Your task to perform on an android device: open a new tab in the chrome app Image 0: 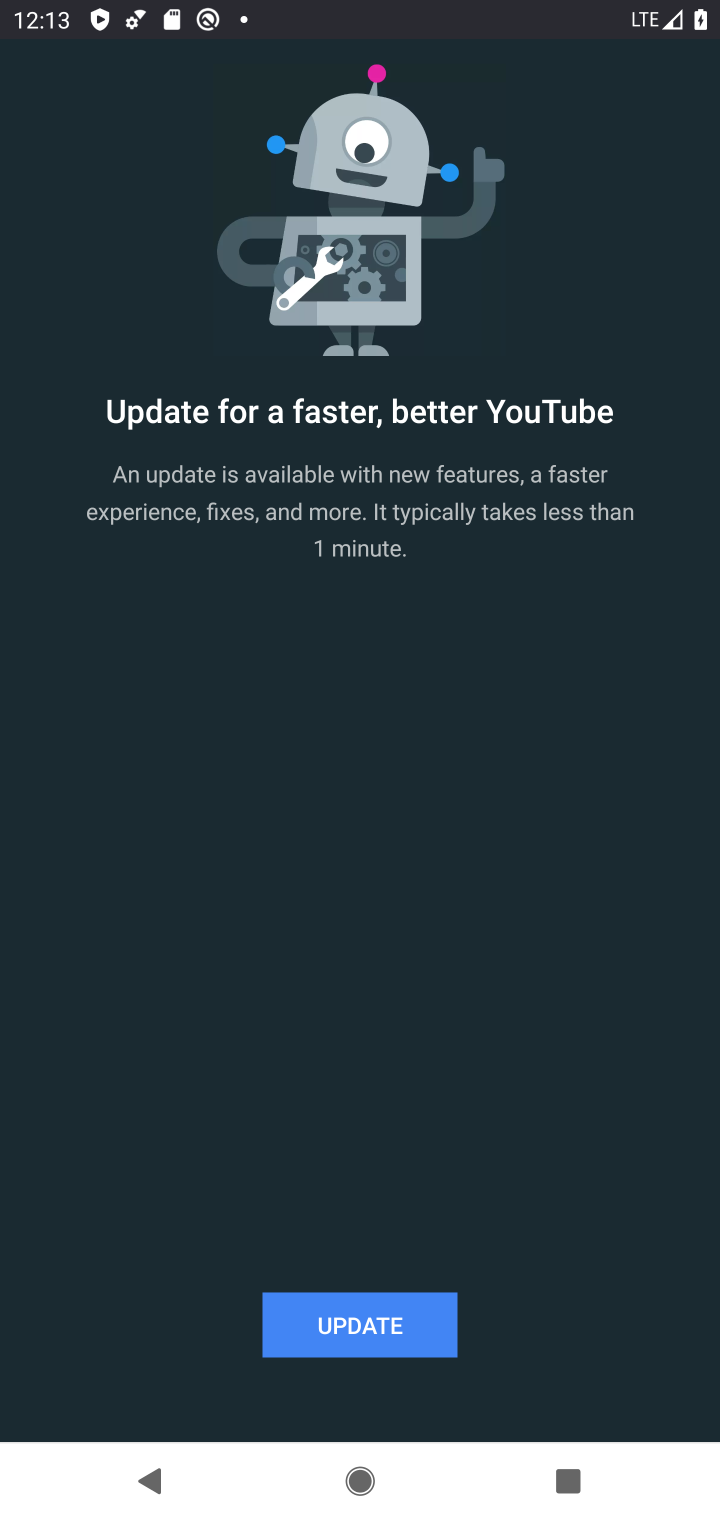
Step 0: press home button
Your task to perform on an android device: open a new tab in the chrome app Image 1: 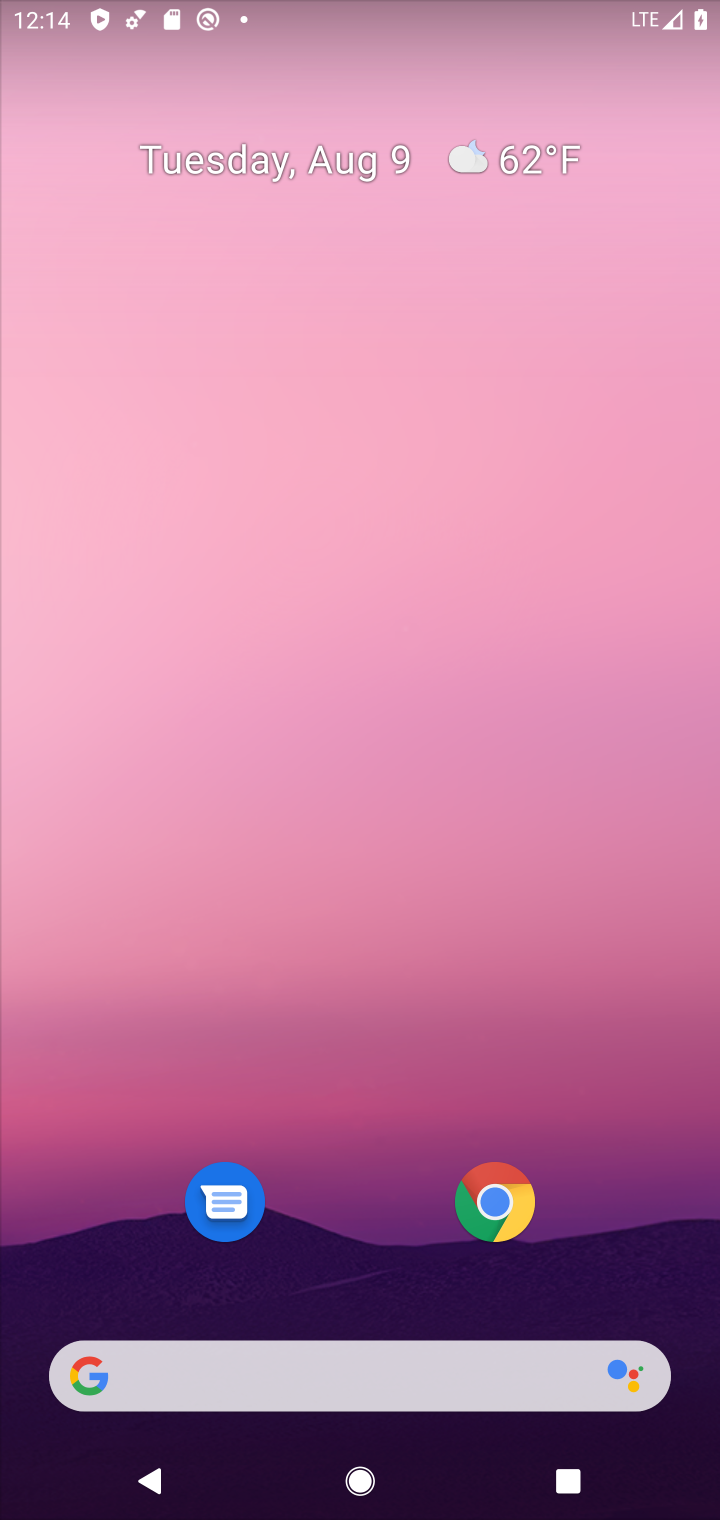
Step 1: click (511, 1216)
Your task to perform on an android device: open a new tab in the chrome app Image 2: 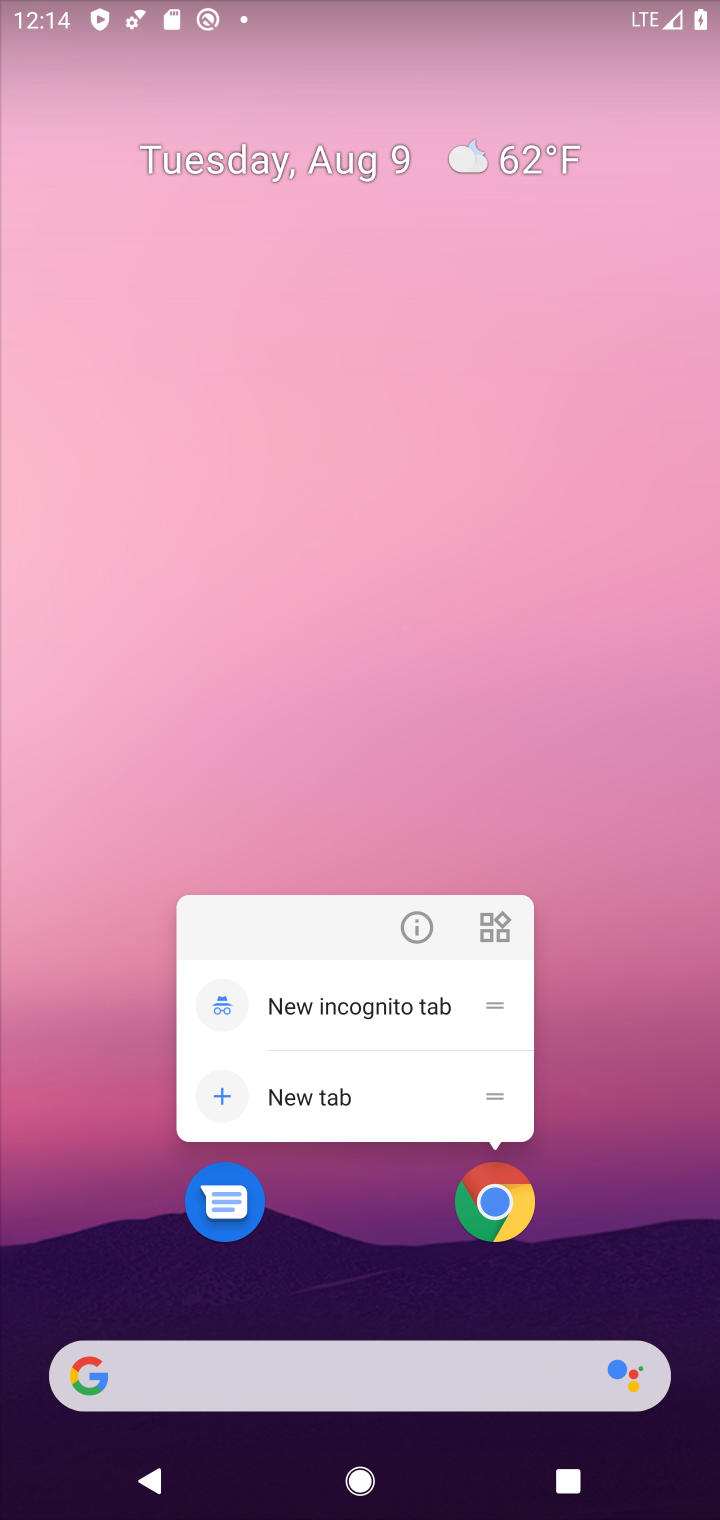
Step 2: click (479, 1216)
Your task to perform on an android device: open a new tab in the chrome app Image 3: 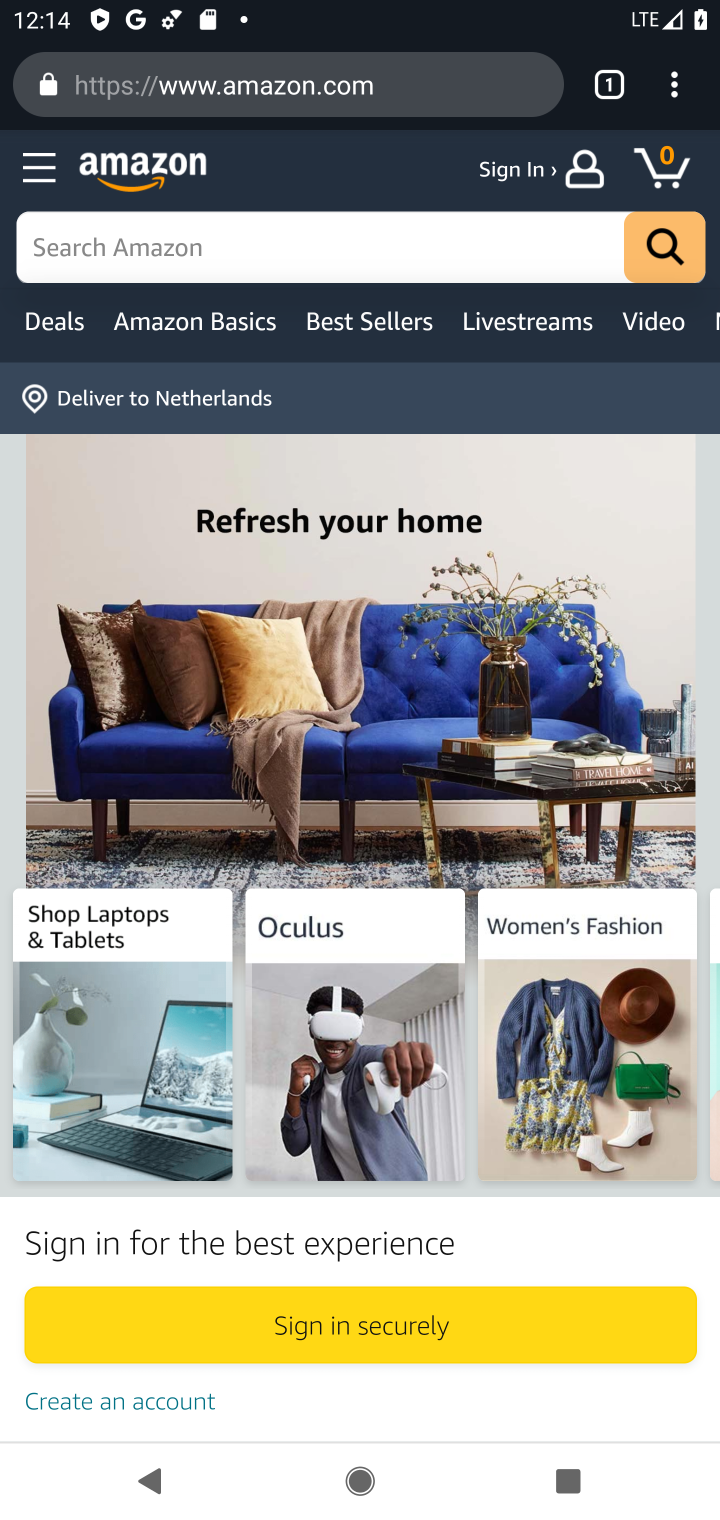
Step 3: click (627, 99)
Your task to perform on an android device: open a new tab in the chrome app Image 4: 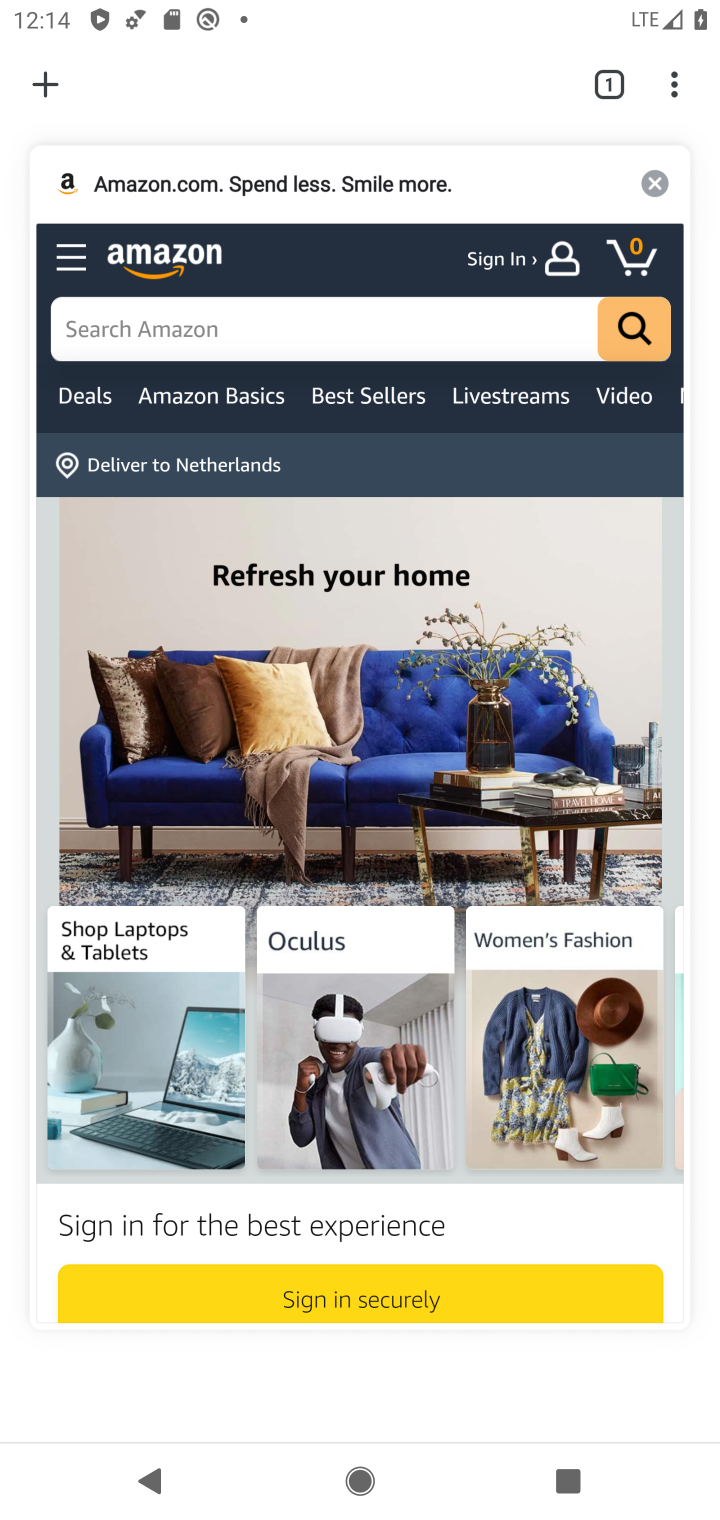
Step 4: click (56, 84)
Your task to perform on an android device: open a new tab in the chrome app Image 5: 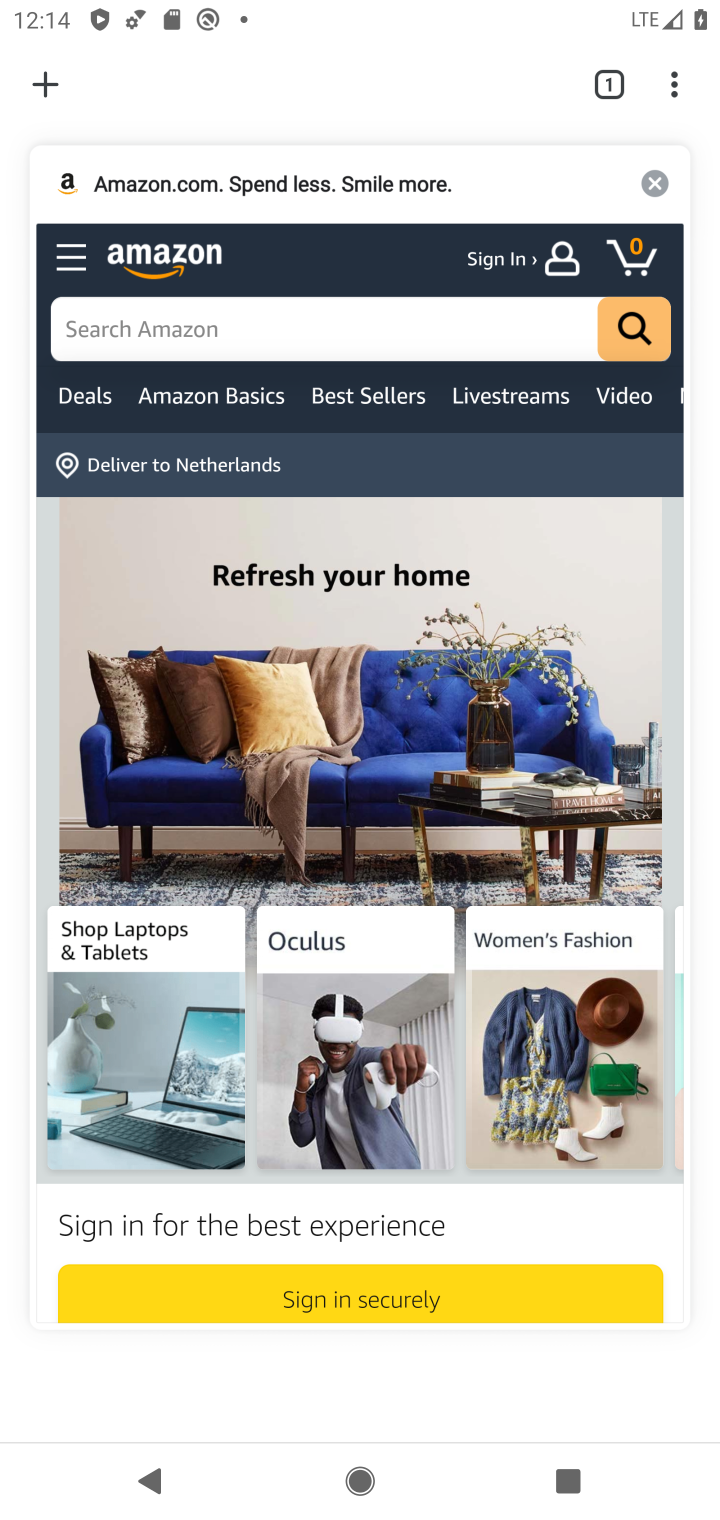
Step 5: click (99, 180)
Your task to perform on an android device: open a new tab in the chrome app Image 6: 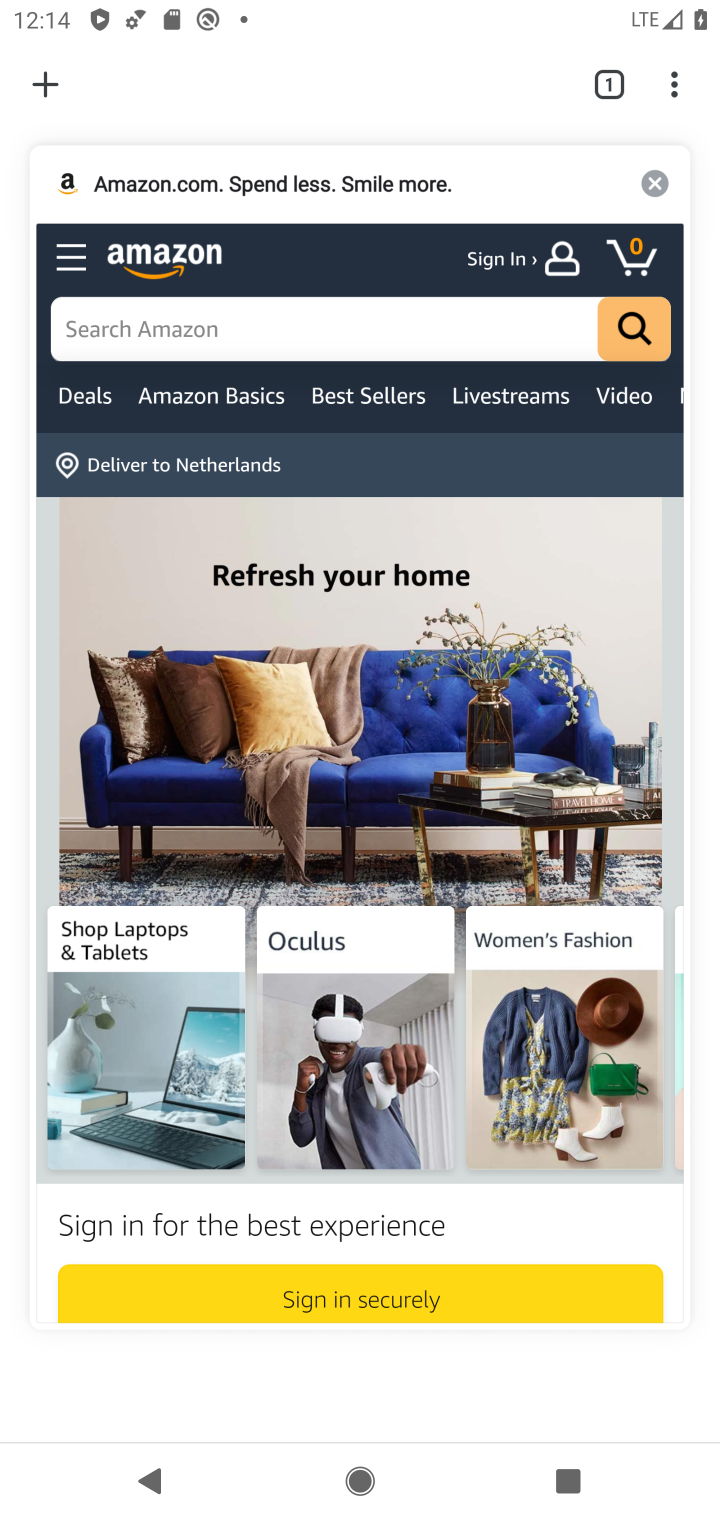
Step 6: click (43, 92)
Your task to perform on an android device: open a new tab in the chrome app Image 7: 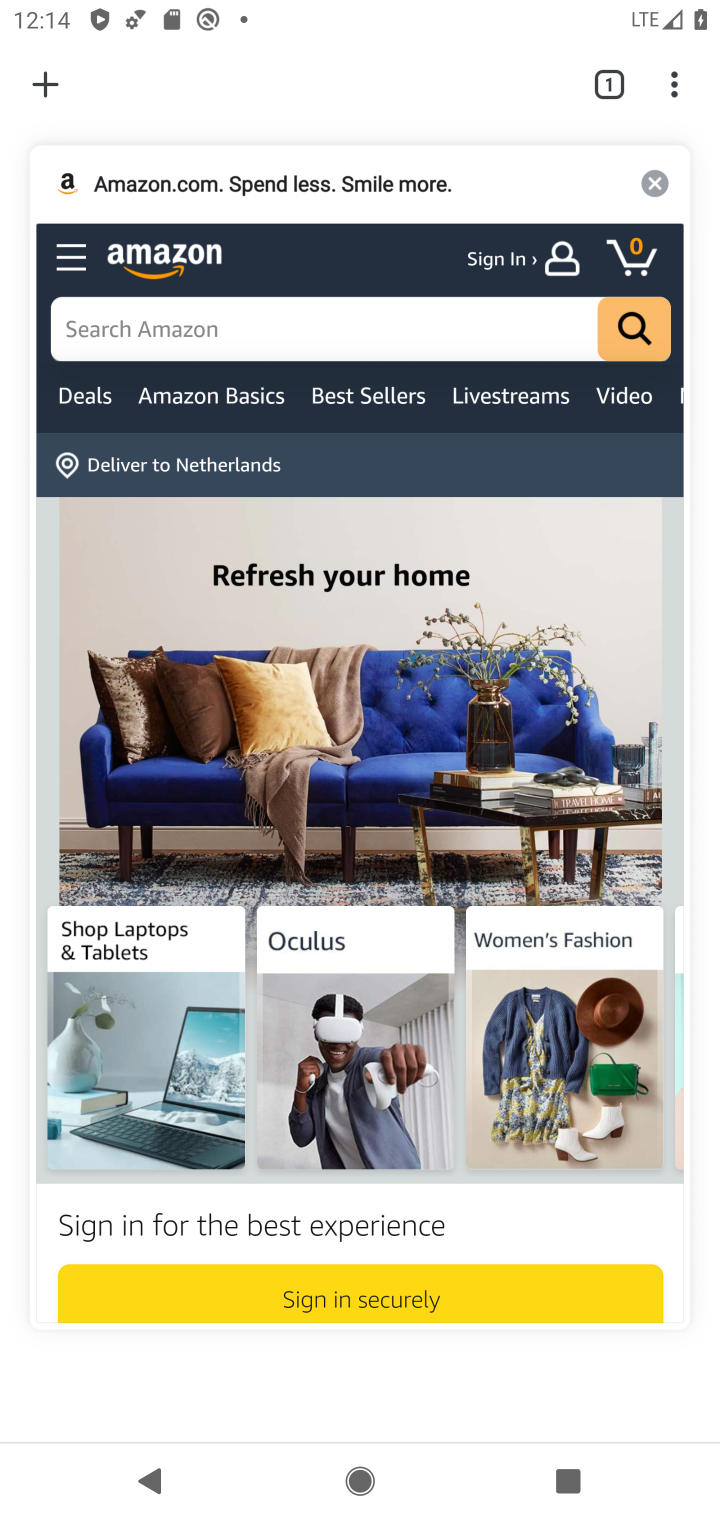
Step 7: click (55, 81)
Your task to perform on an android device: open a new tab in the chrome app Image 8: 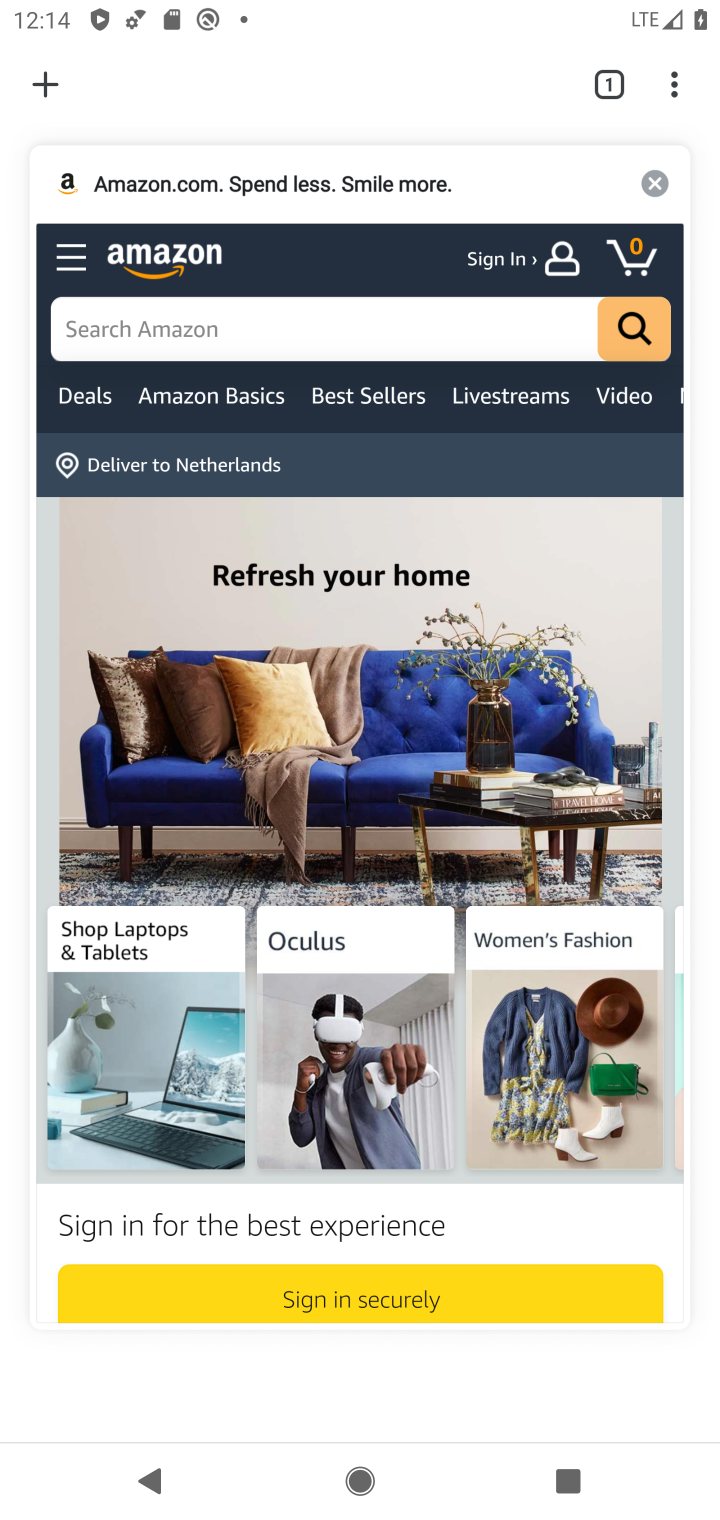
Step 8: click (45, 81)
Your task to perform on an android device: open a new tab in the chrome app Image 9: 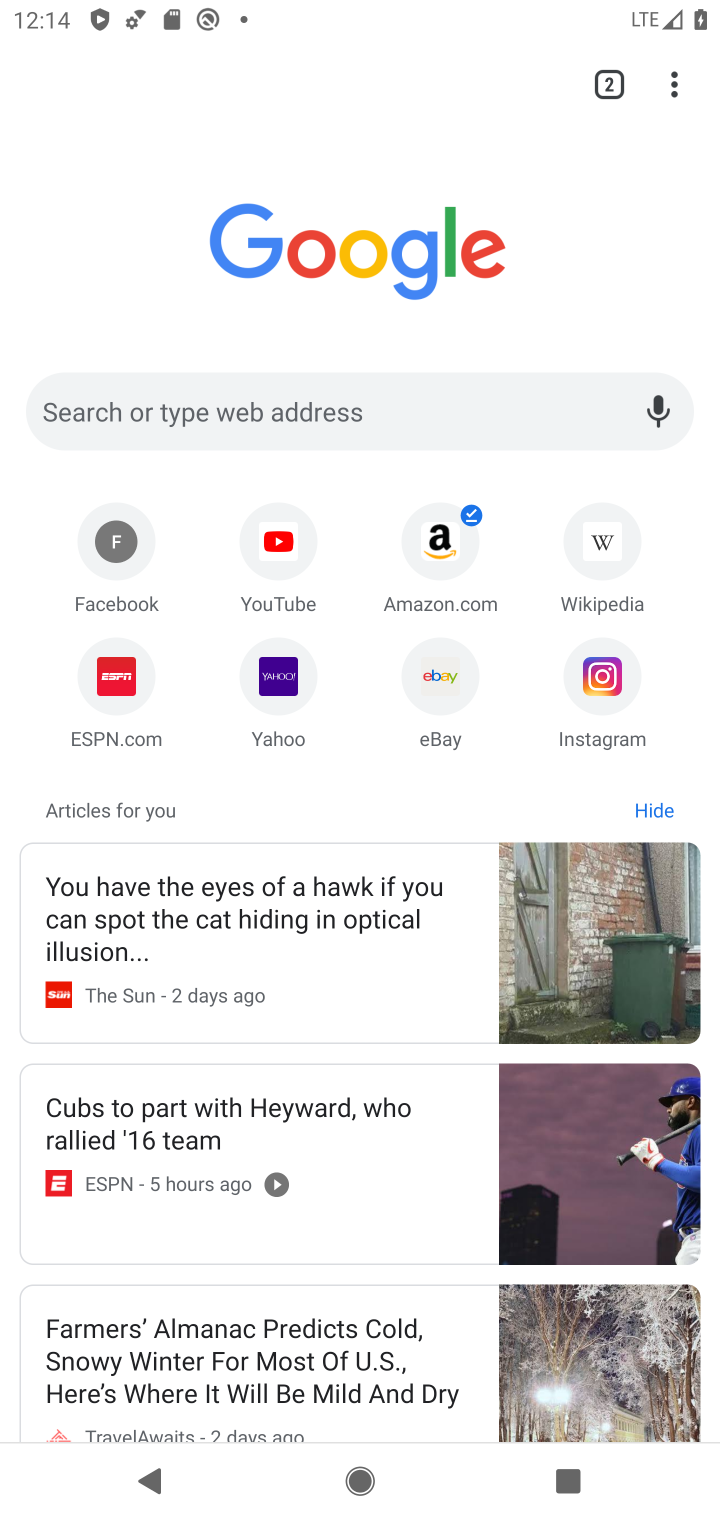
Step 9: task complete